Your task to perform on an android device: Do I have any events today? Image 0: 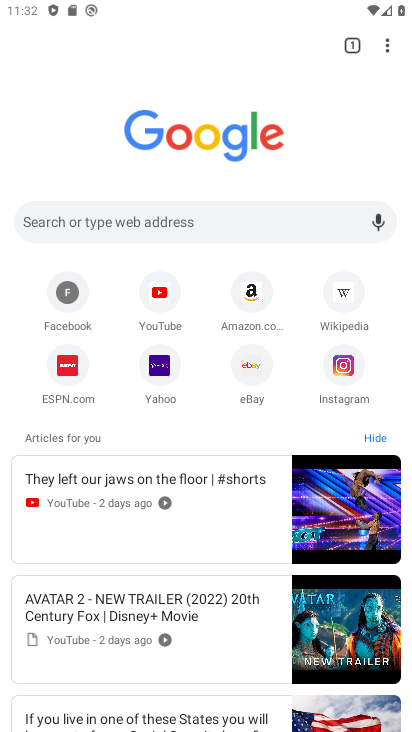
Step 0: press home button
Your task to perform on an android device: Do I have any events today? Image 1: 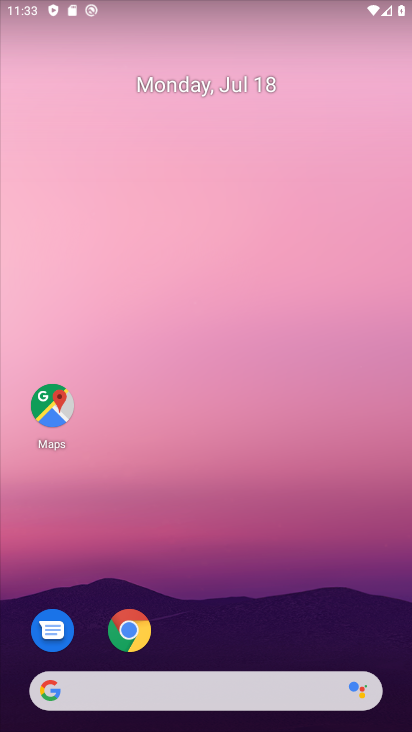
Step 1: click (194, 90)
Your task to perform on an android device: Do I have any events today? Image 2: 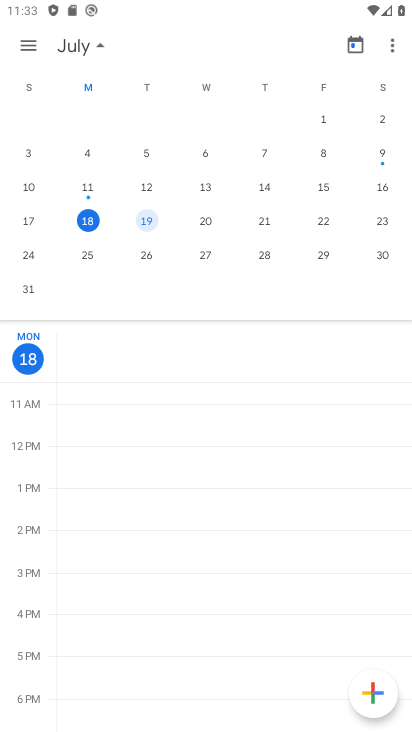
Step 2: click (24, 41)
Your task to perform on an android device: Do I have any events today? Image 3: 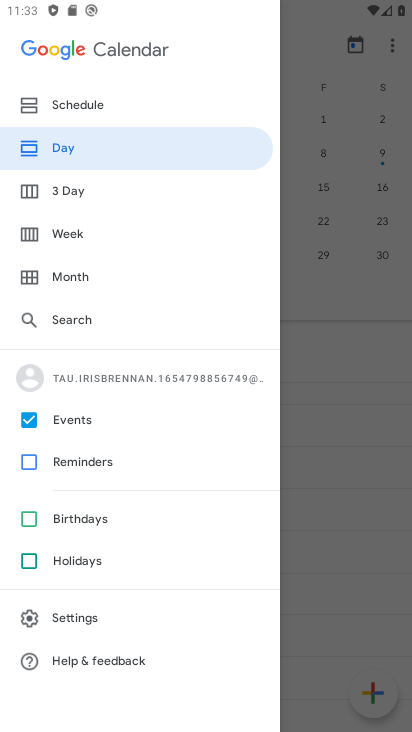
Step 3: click (355, 263)
Your task to perform on an android device: Do I have any events today? Image 4: 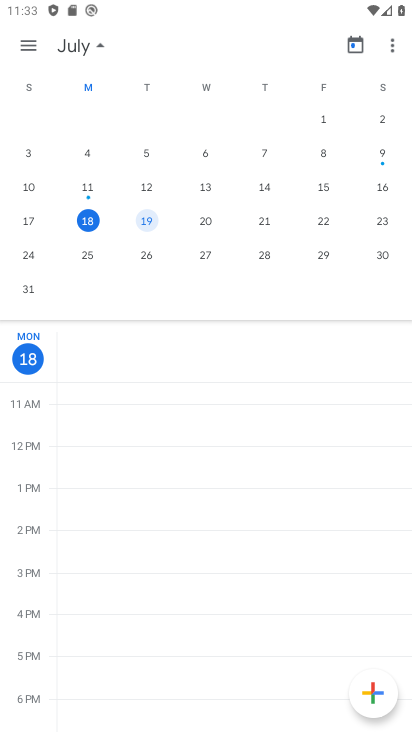
Step 4: task complete